Your task to perform on an android device: Search for pizza restaurants on Maps Image 0: 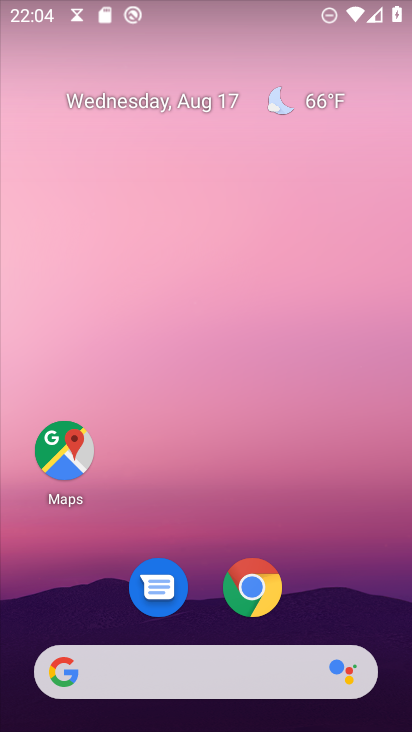
Step 0: click (68, 448)
Your task to perform on an android device: Search for pizza restaurants on Maps Image 1: 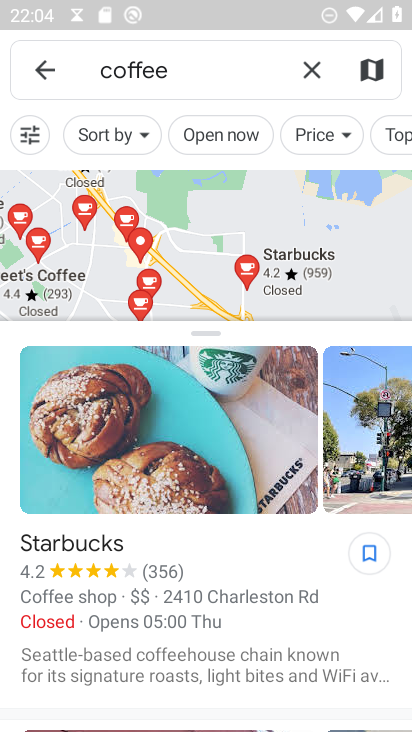
Step 1: click (34, 78)
Your task to perform on an android device: Search for pizza restaurants on Maps Image 2: 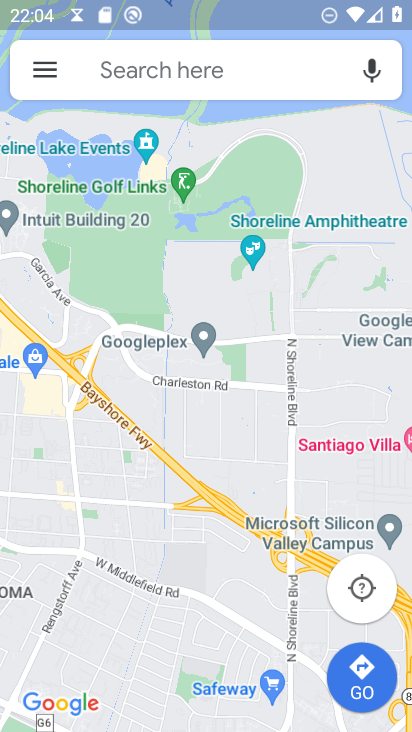
Step 2: click (102, 65)
Your task to perform on an android device: Search for pizza restaurants on Maps Image 3: 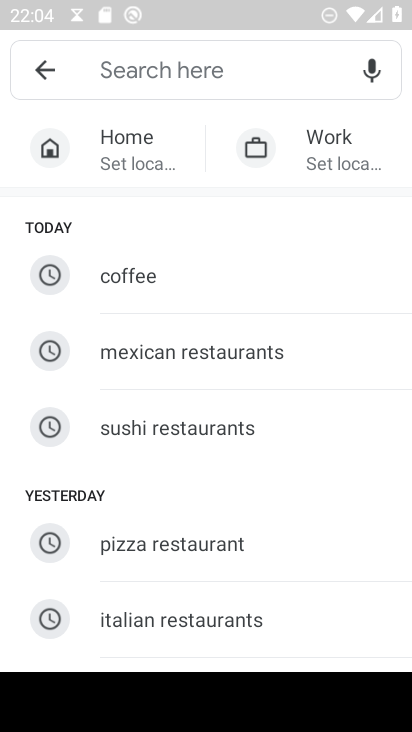
Step 3: type "pizza restaurants"
Your task to perform on an android device: Search for pizza restaurants on Maps Image 4: 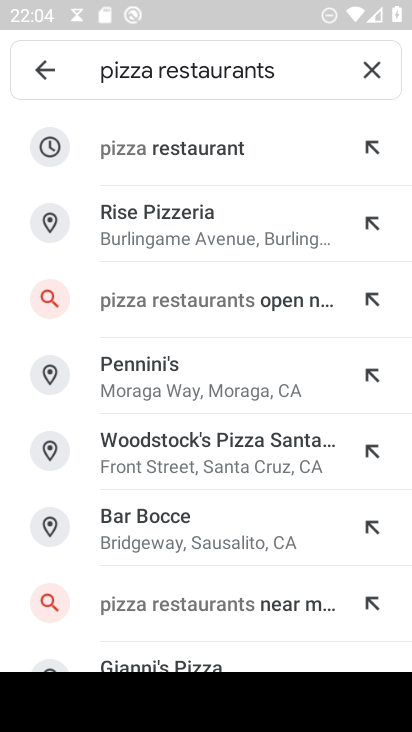
Step 4: type ""
Your task to perform on an android device: Search for pizza restaurants on Maps Image 5: 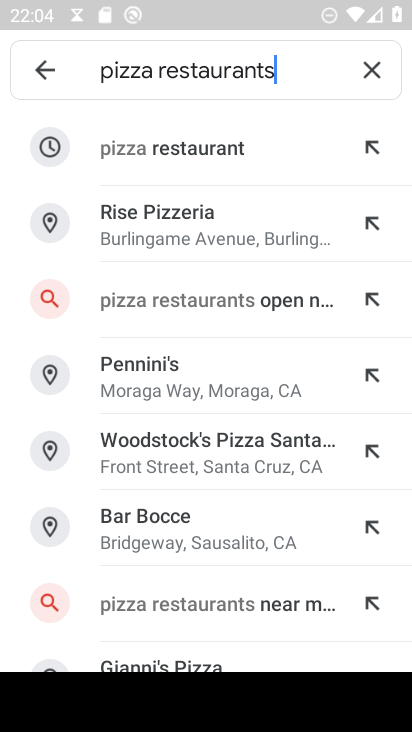
Step 5: type ""
Your task to perform on an android device: Search for pizza restaurants on Maps Image 6: 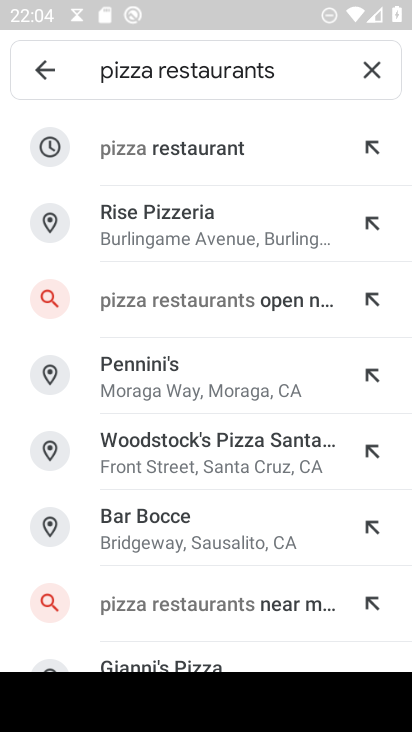
Step 6: task complete